Your task to perform on an android device: Open Amazon Image 0: 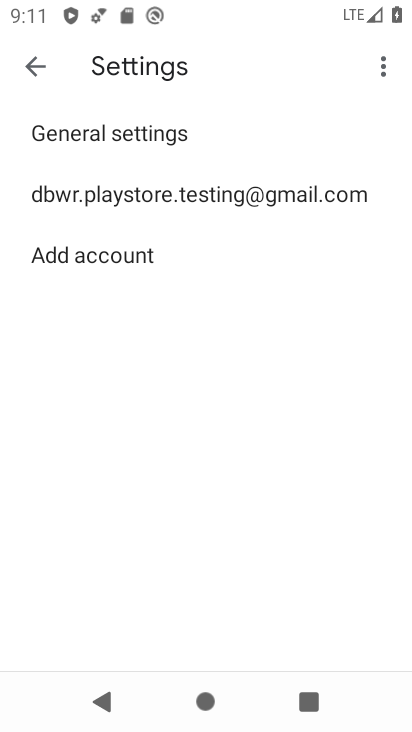
Step 0: press home button
Your task to perform on an android device: Open Amazon Image 1: 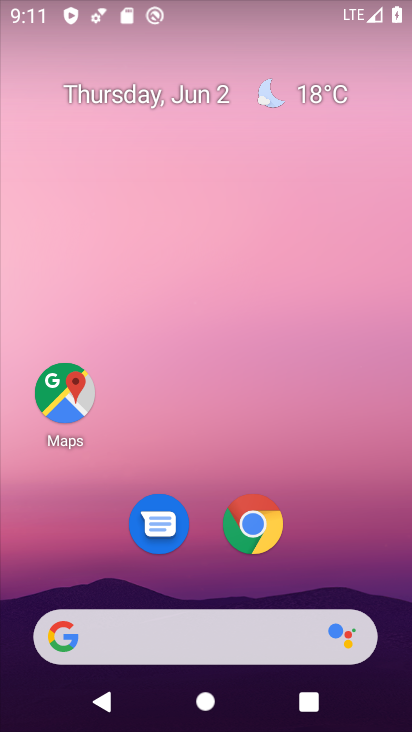
Step 1: click (261, 519)
Your task to perform on an android device: Open Amazon Image 2: 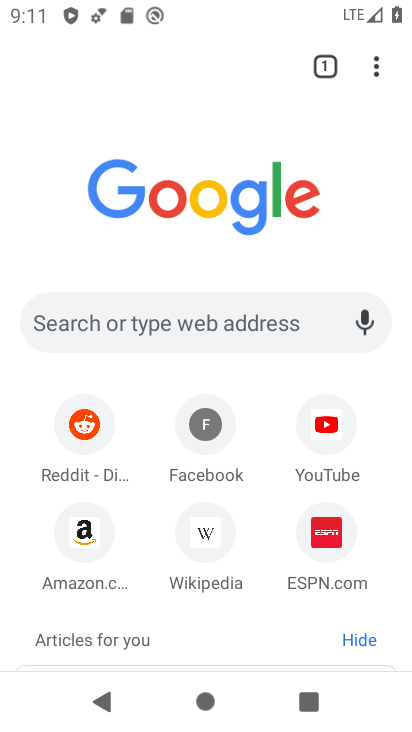
Step 2: click (92, 535)
Your task to perform on an android device: Open Amazon Image 3: 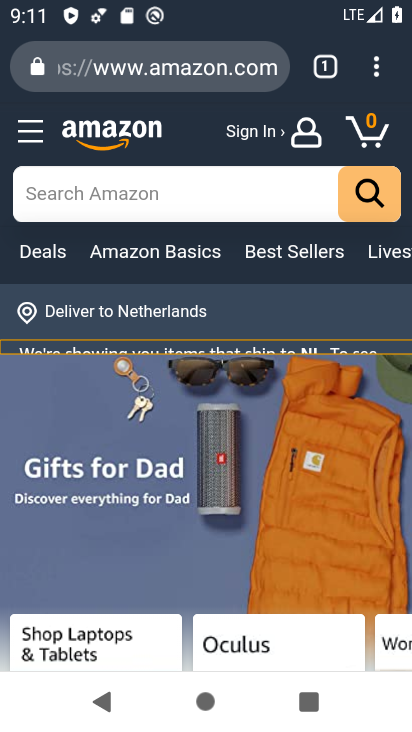
Step 3: task complete